Your task to perform on an android device: Search for good Japanese restaurants Image 0: 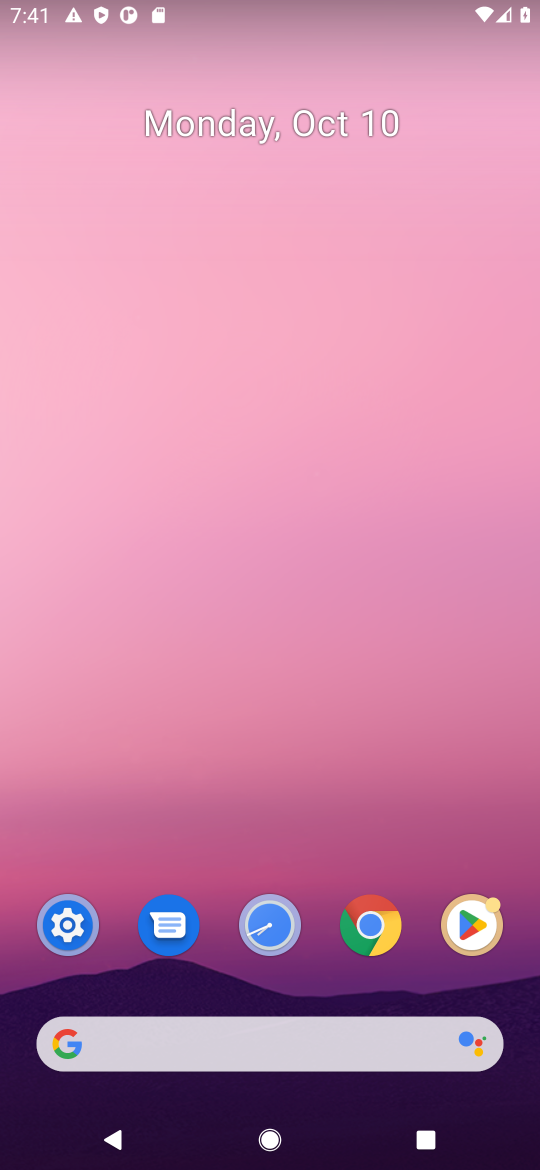
Step 0: drag from (294, 986) to (325, 132)
Your task to perform on an android device: Search for good Japanese restaurants Image 1: 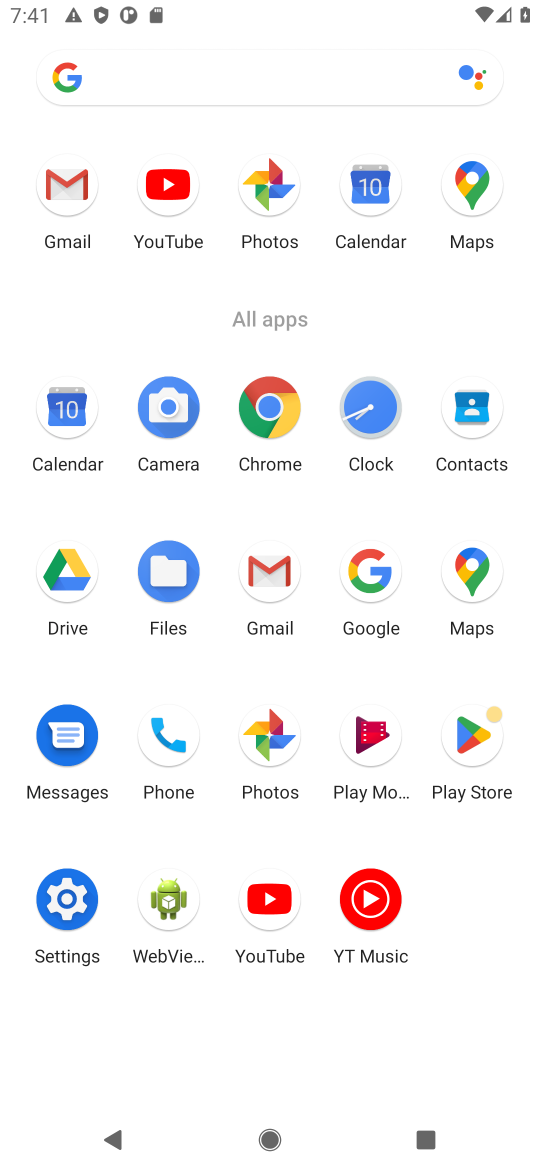
Step 1: click (278, 403)
Your task to perform on an android device: Search for good Japanese restaurants Image 2: 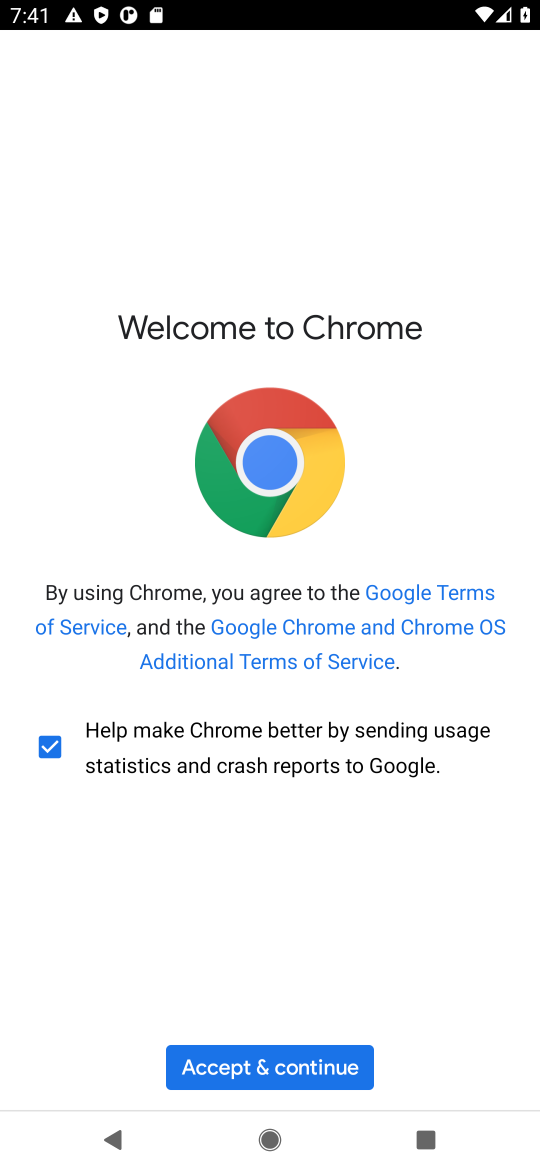
Step 2: click (244, 1070)
Your task to perform on an android device: Search for good Japanese restaurants Image 3: 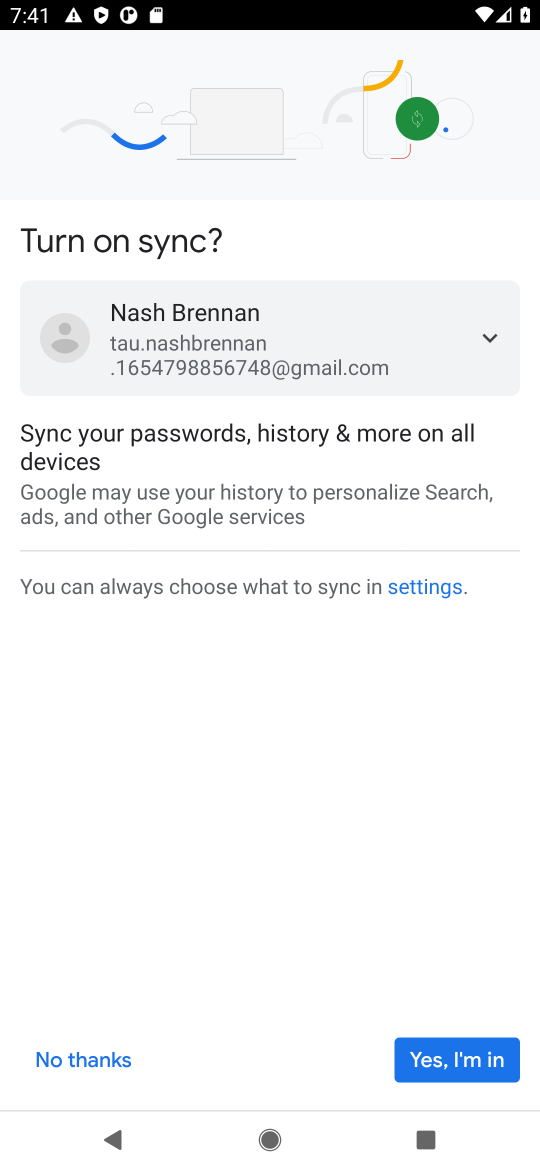
Step 3: click (394, 1059)
Your task to perform on an android device: Search for good Japanese restaurants Image 4: 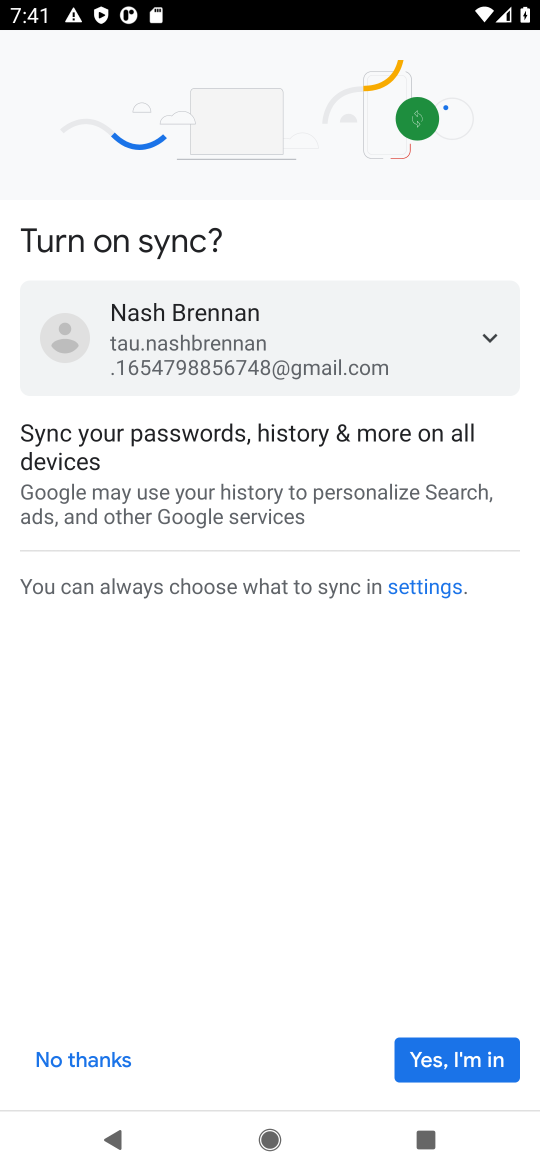
Step 4: click (499, 1066)
Your task to perform on an android device: Search for good Japanese restaurants Image 5: 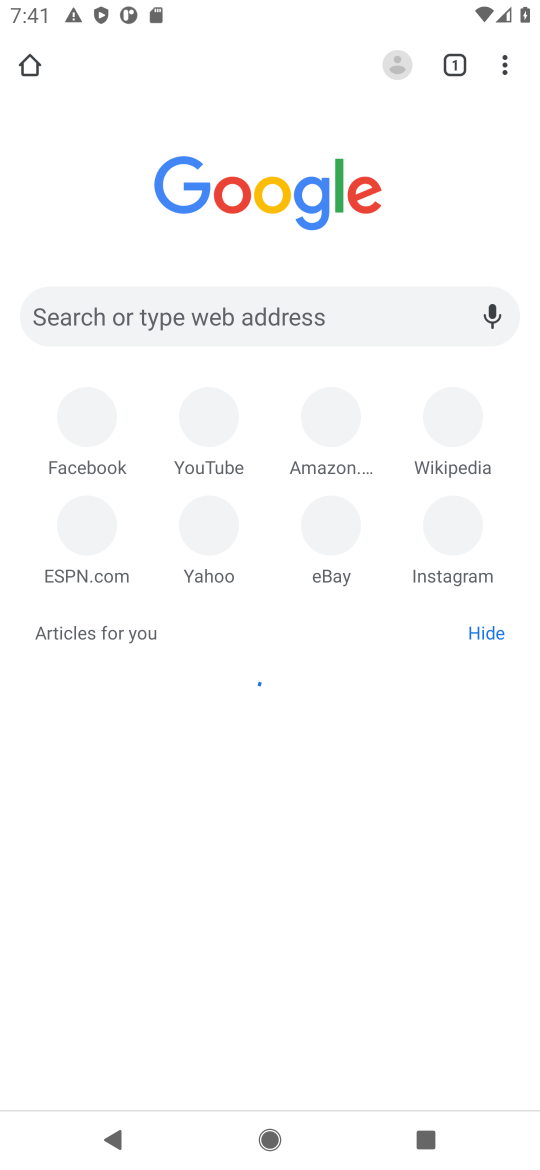
Step 5: click (297, 314)
Your task to perform on an android device: Search for good Japanese restaurants Image 6: 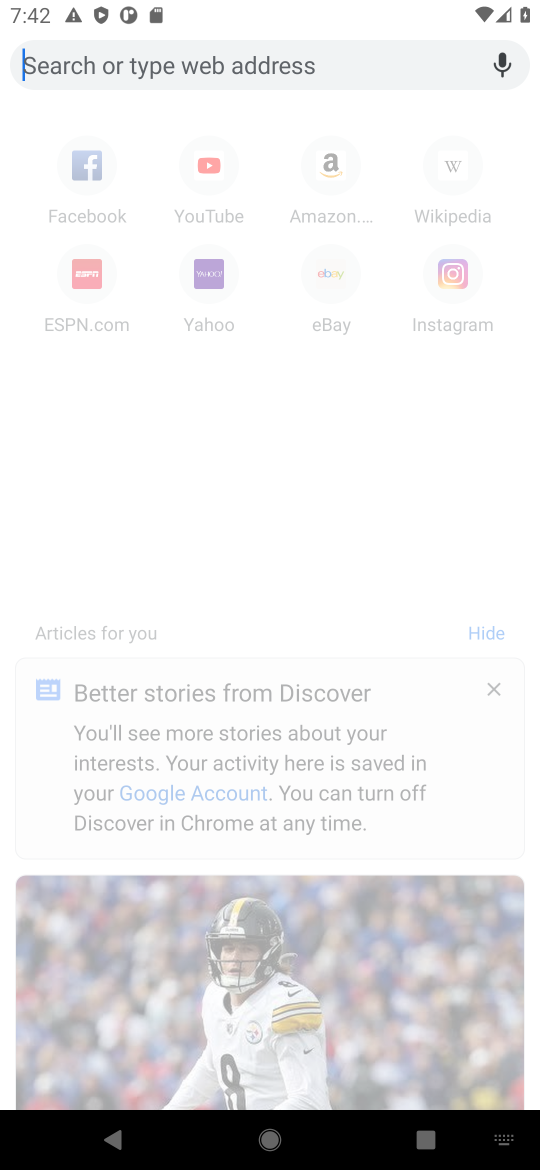
Step 6: type "good Japanese restaurants"
Your task to perform on an android device: Search for good Japanese restaurants Image 7: 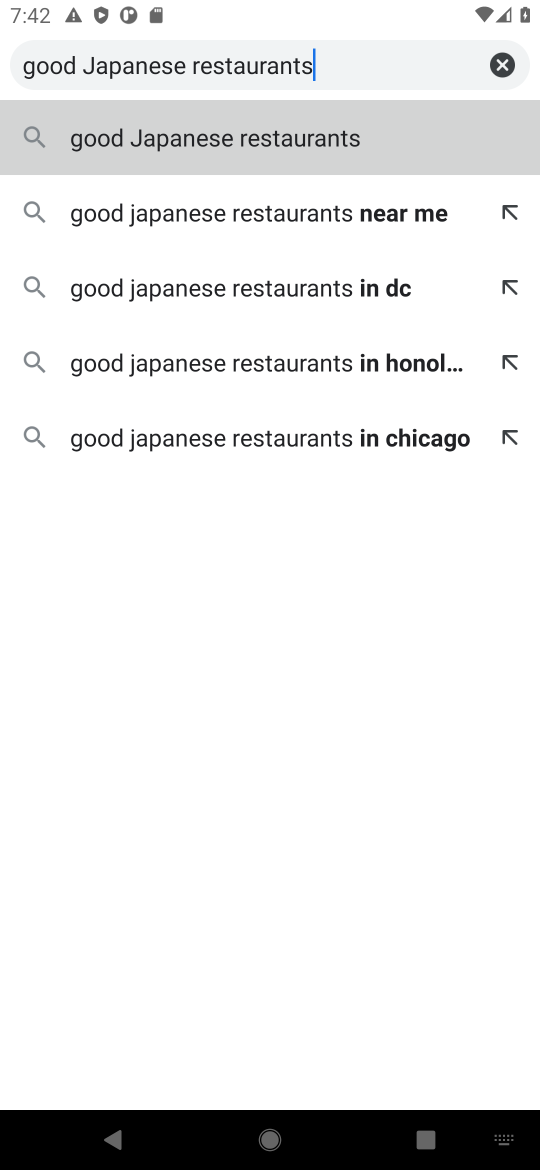
Step 7: press enter
Your task to perform on an android device: Search for good Japanese restaurants Image 8: 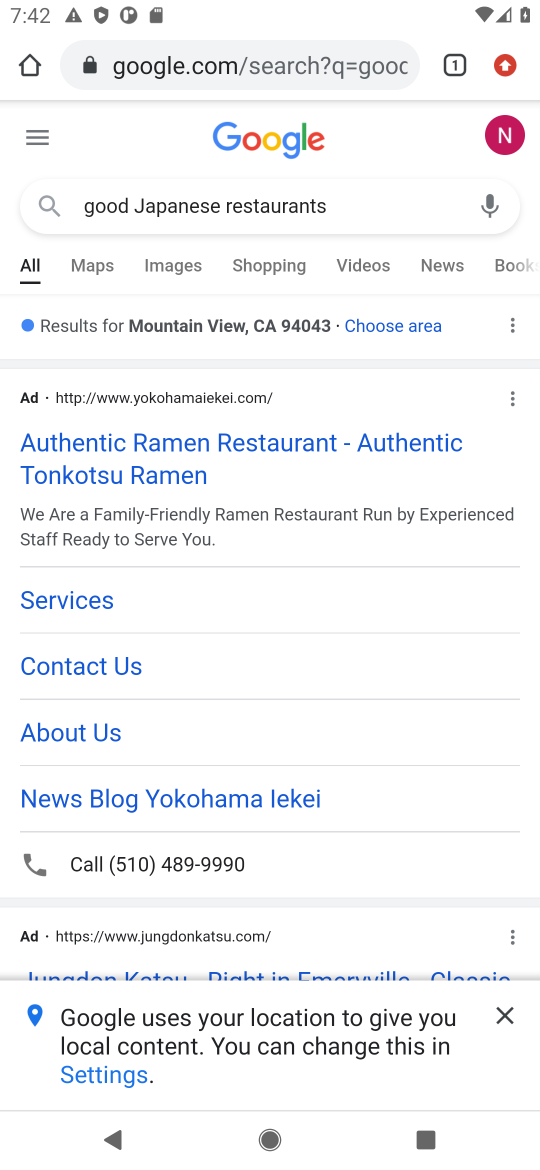
Step 8: task complete